Your task to perform on an android device: Open Wikipedia Image 0: 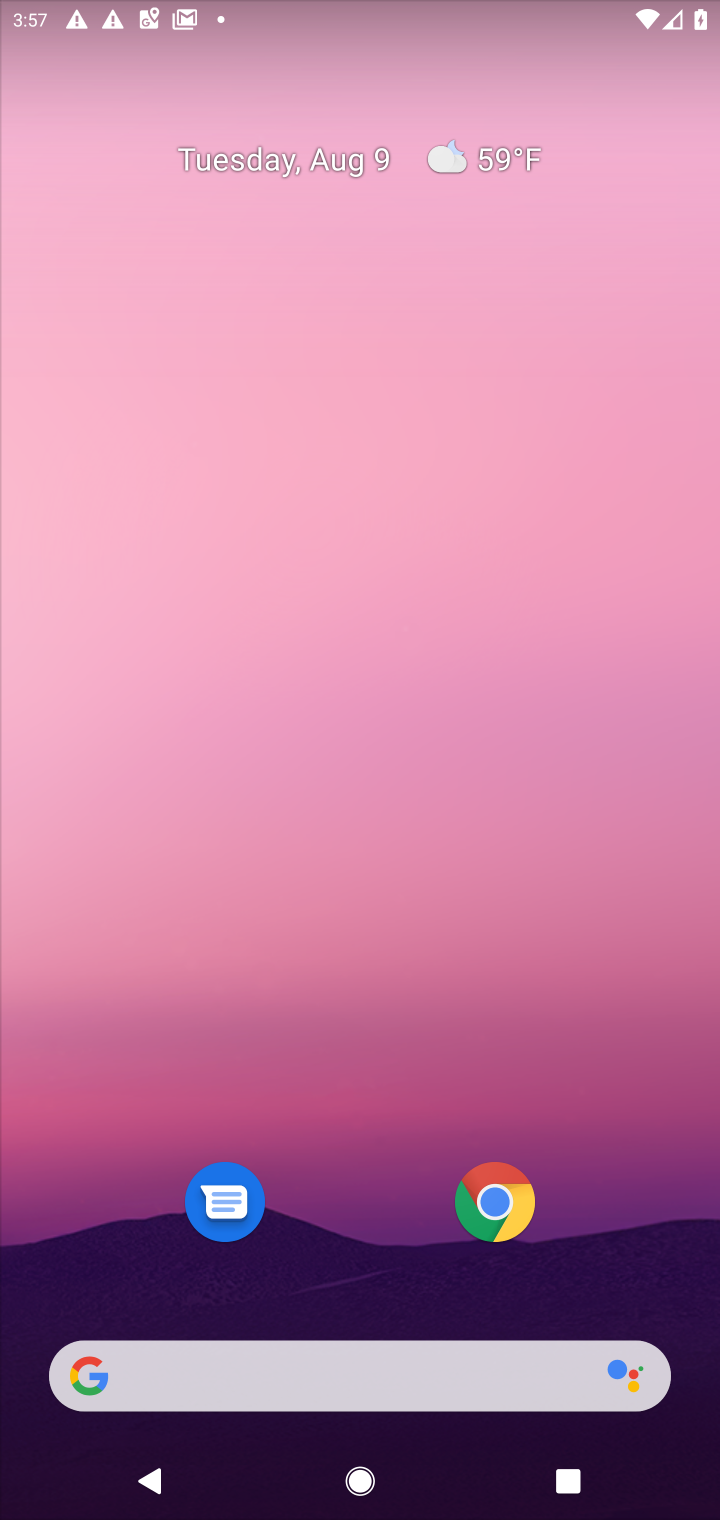
Step 0: drag from (350, 253) to (350, 147)
Your task to perform on an android device: Open Wikipedia Image 1: 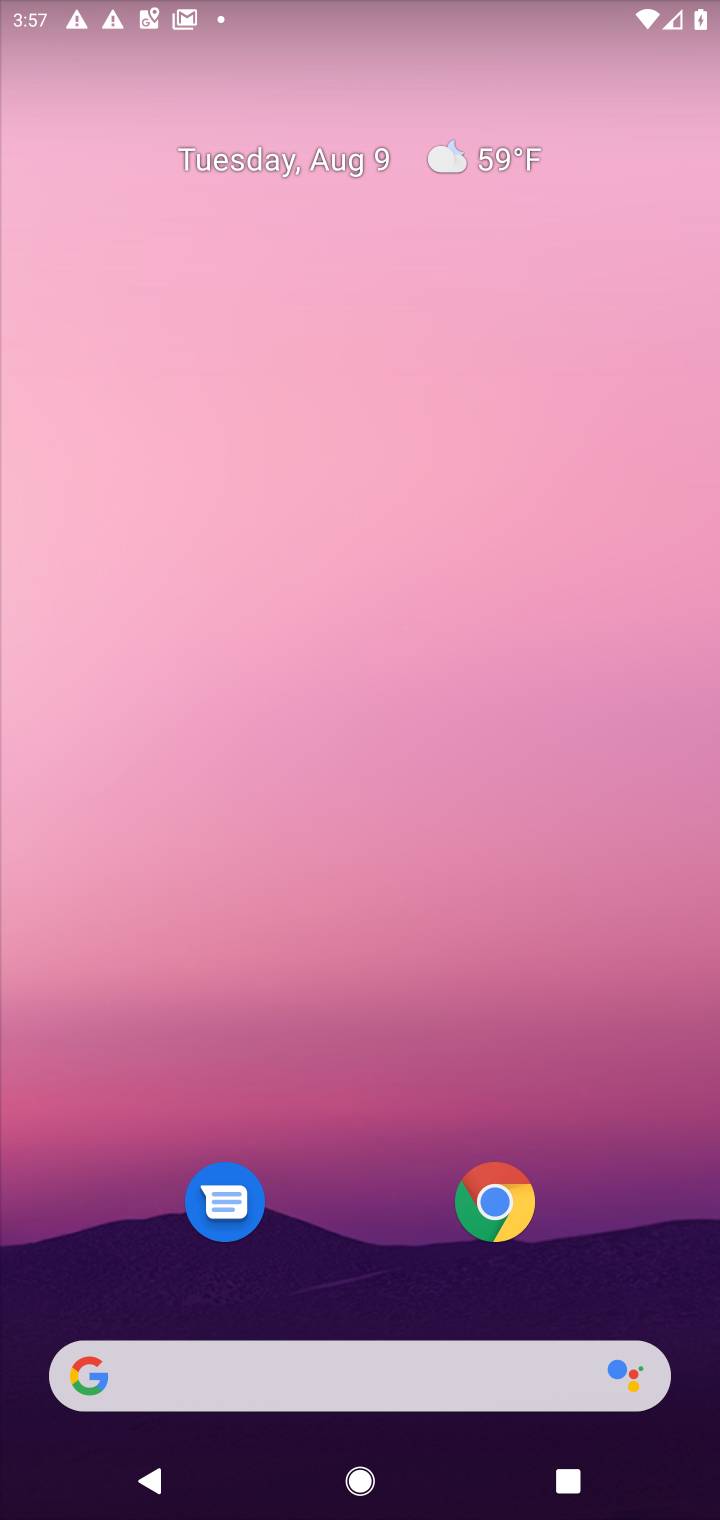
Step 1: drag from (352, 1170) to (340, 215)
Your task to perform on an android device: Open Wikipedia Image 2: 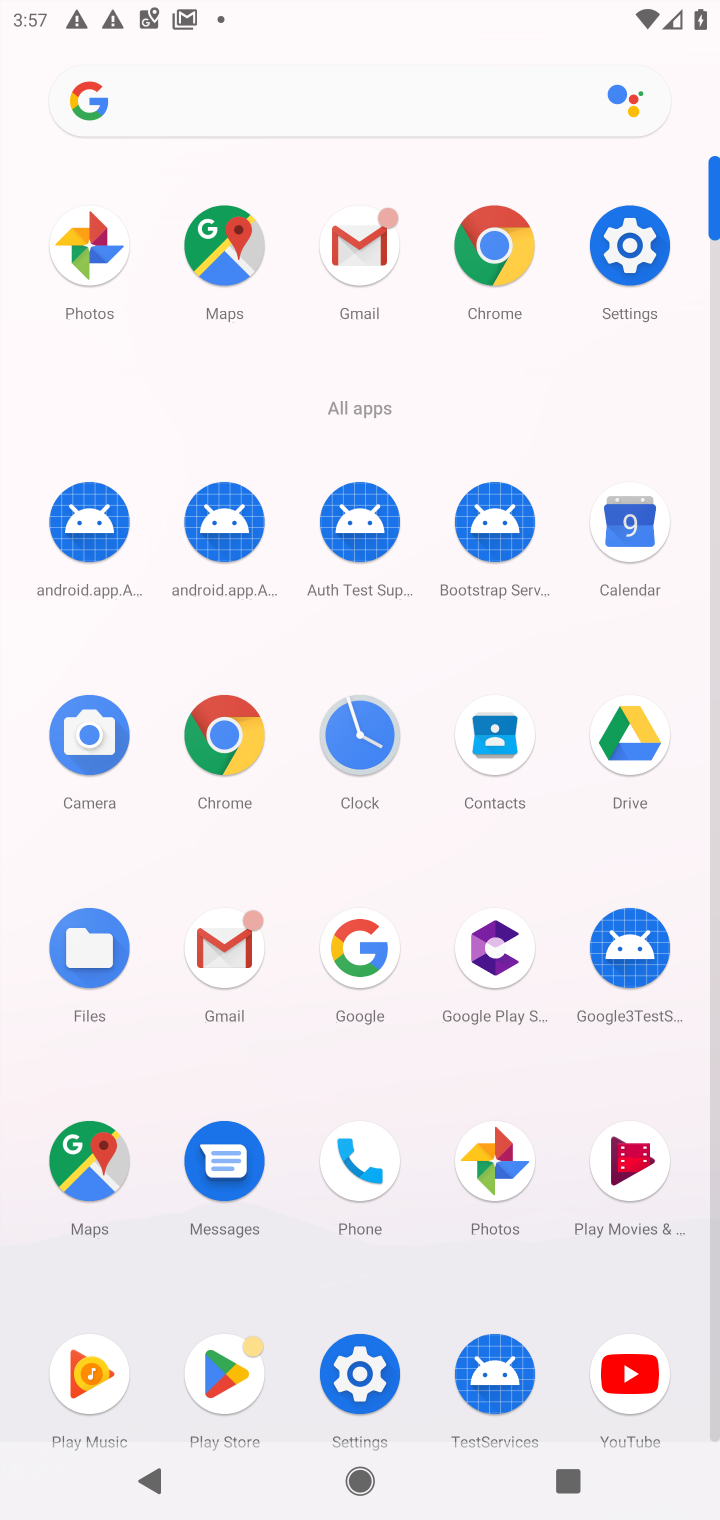
Step 2: click (379, 217)
Your task to perform on an android device: Open Wikipedia Image 3: 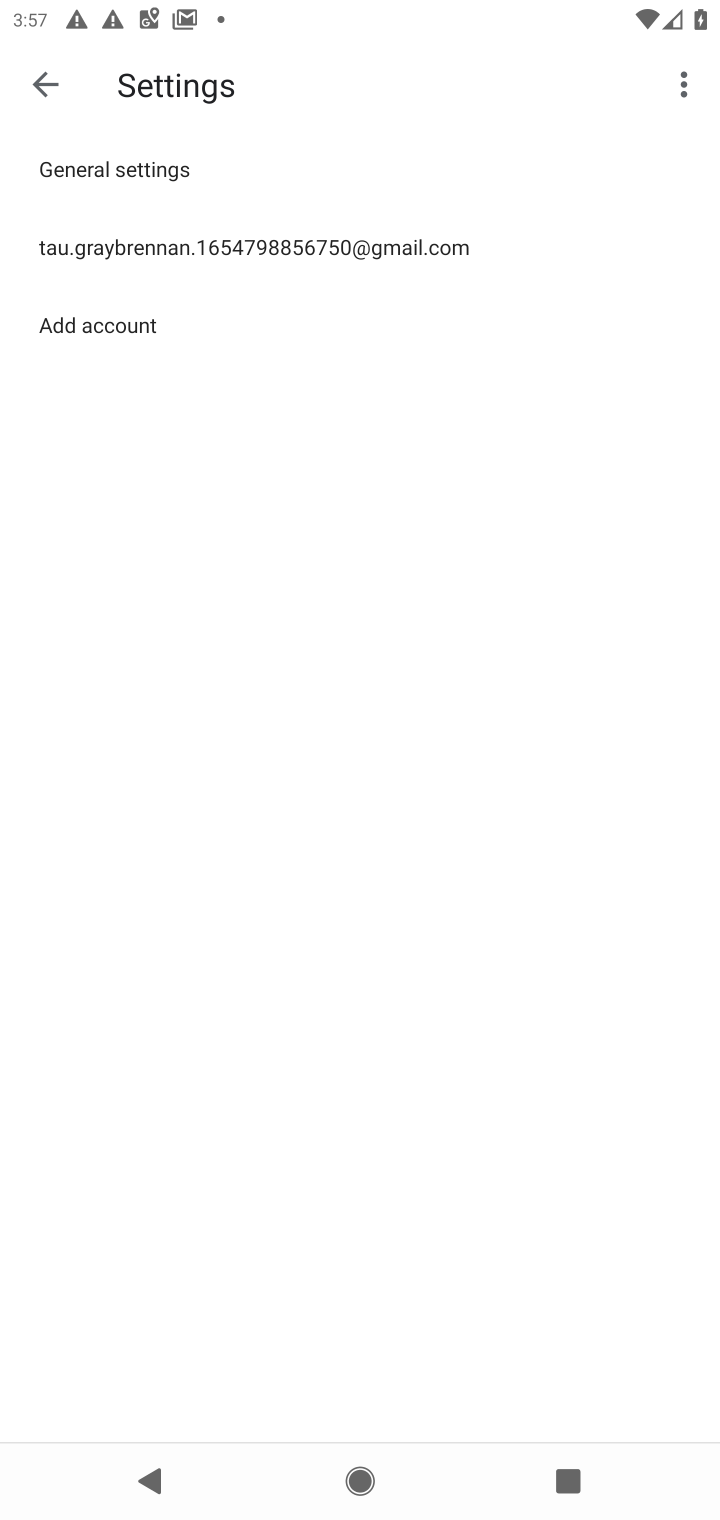
Step 3: press home button
Your task to perform on an android device: Open Wikipedia Image 4: 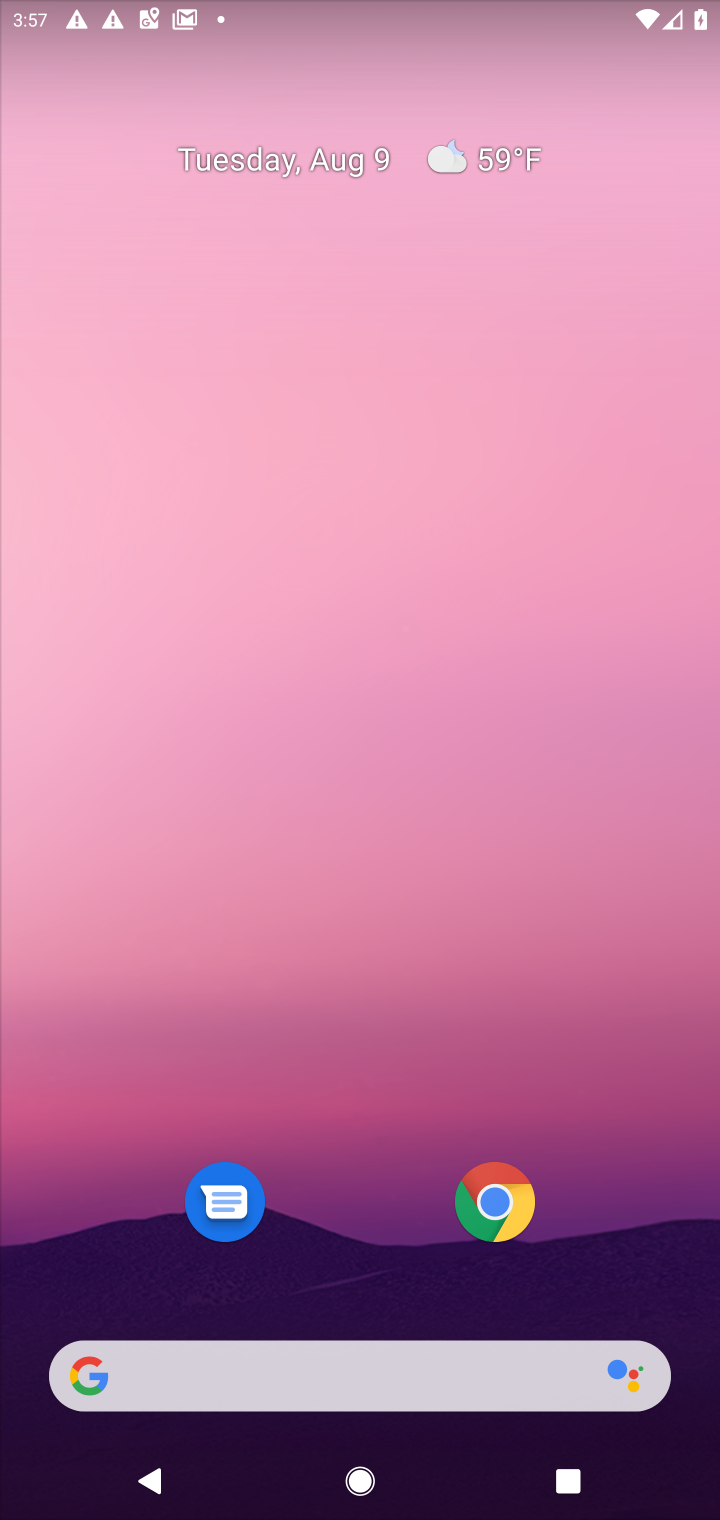
Step 4: click (488, 1208)
Your task to perform on an android device: Open Wikipedia Image 5: 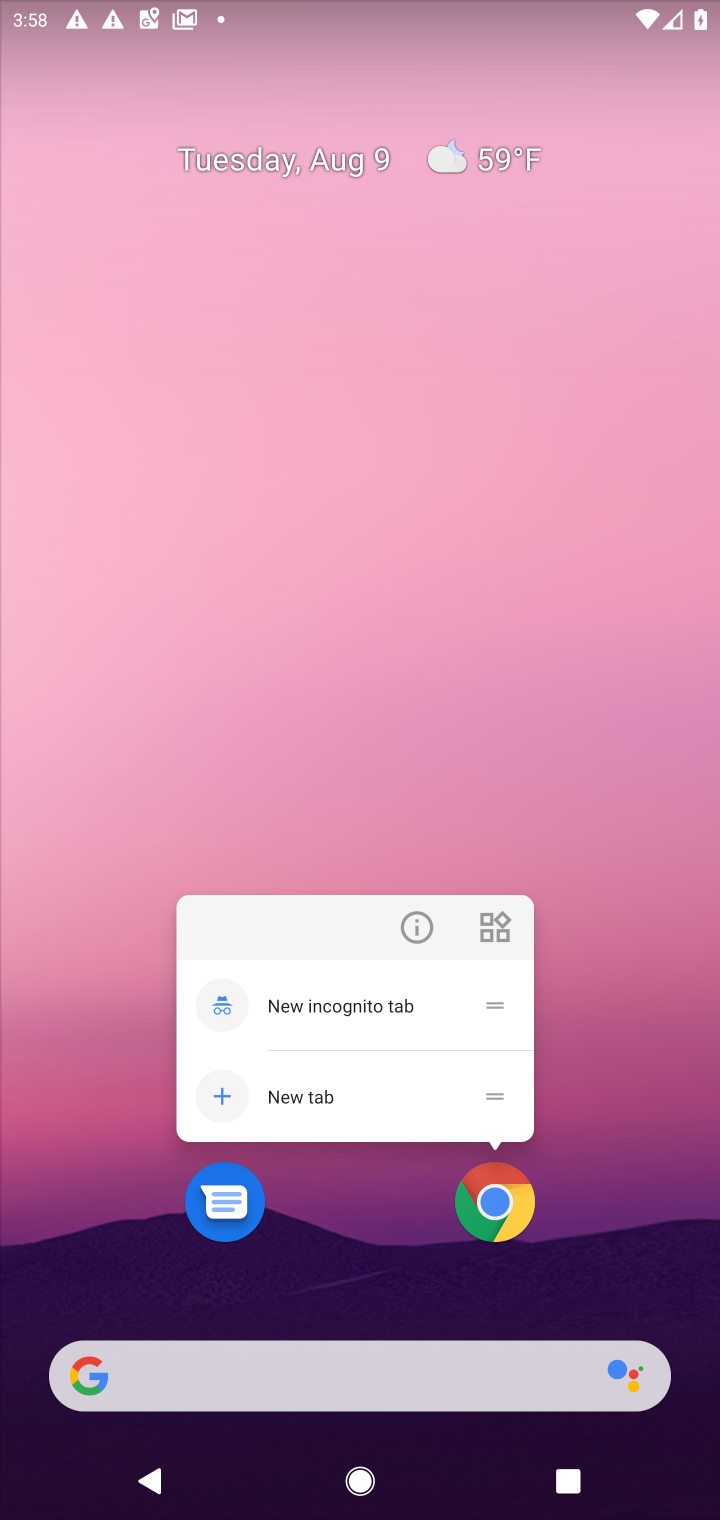
Step 5: click (521, 1204)
Your task to perform on an android device: Open Wikipedia Image 6: 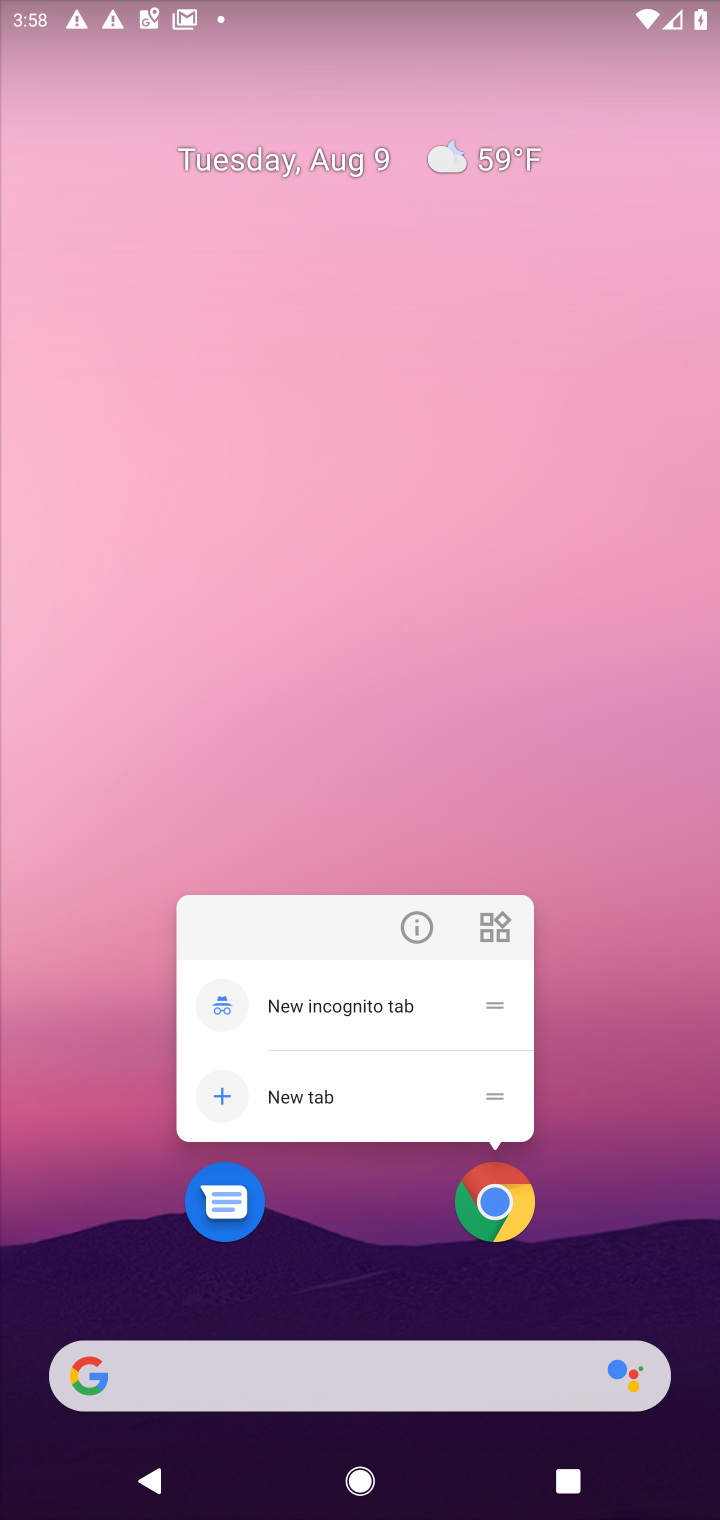
Step 6: drag from (428, 1289) to (439, 198)
Your task to perform on an android device: Open Wikipedia Image 7: 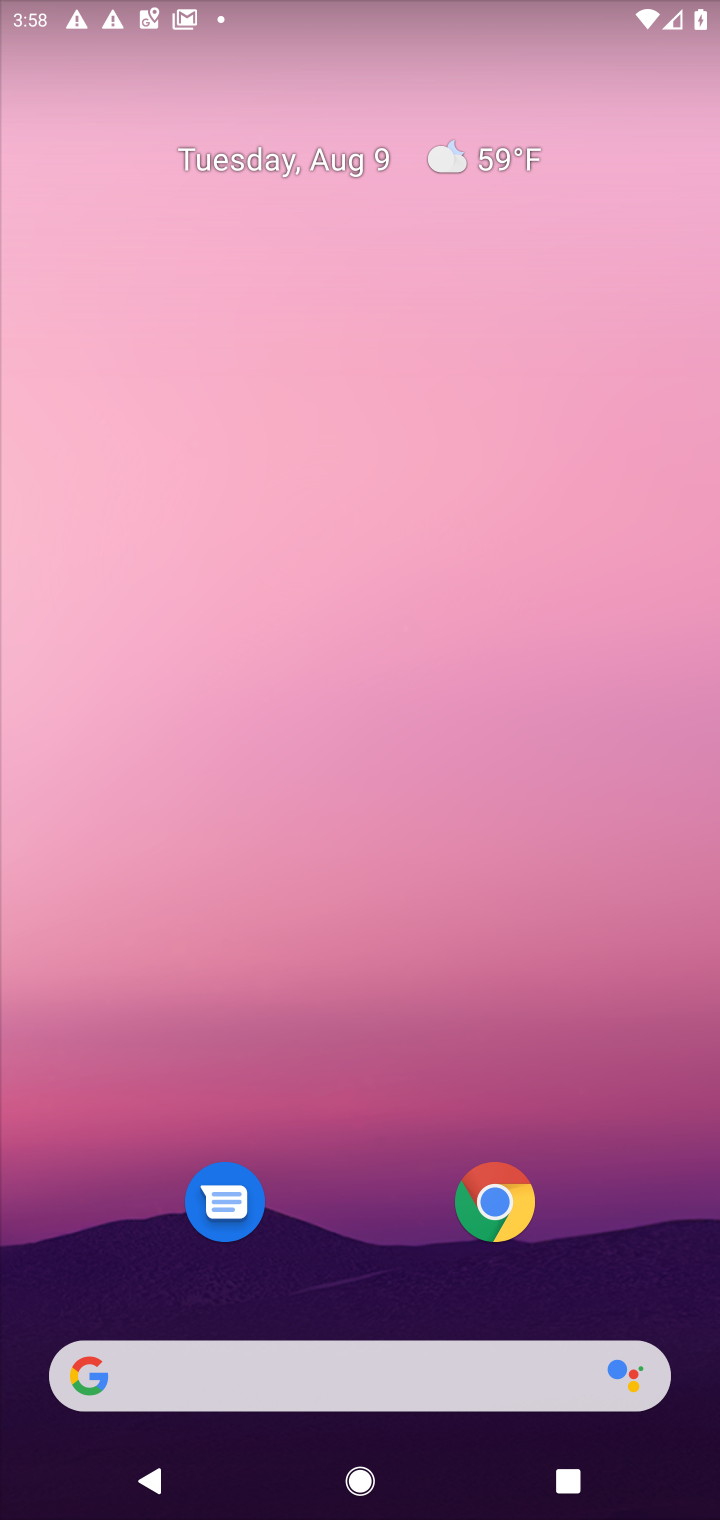
Step 7: drag from (367, 1217) to (393, 58)
Your task to perform on an android device: Open Wikipedia Image 8: 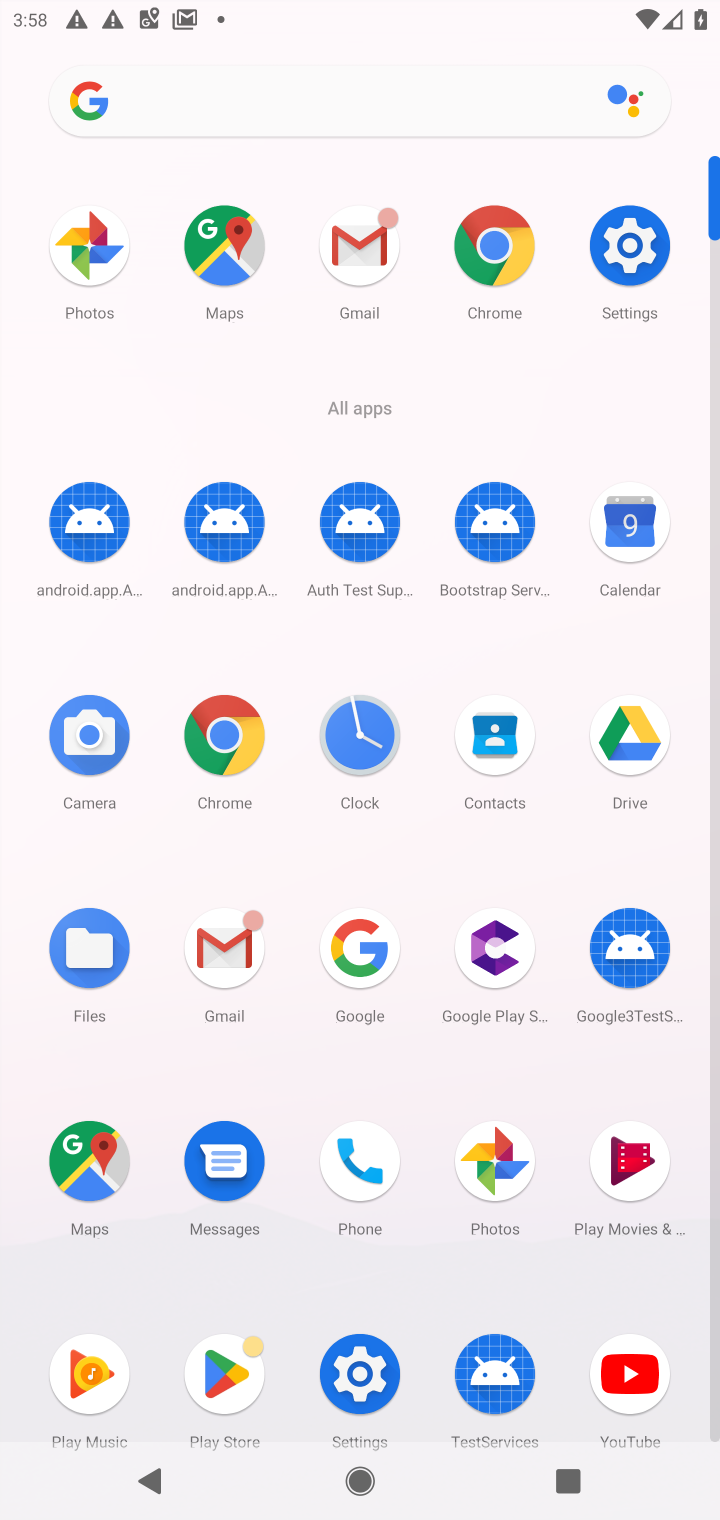
Step 8: click (491, 235)
Your task to perform on an android device: Open Wikipedia Image 9: 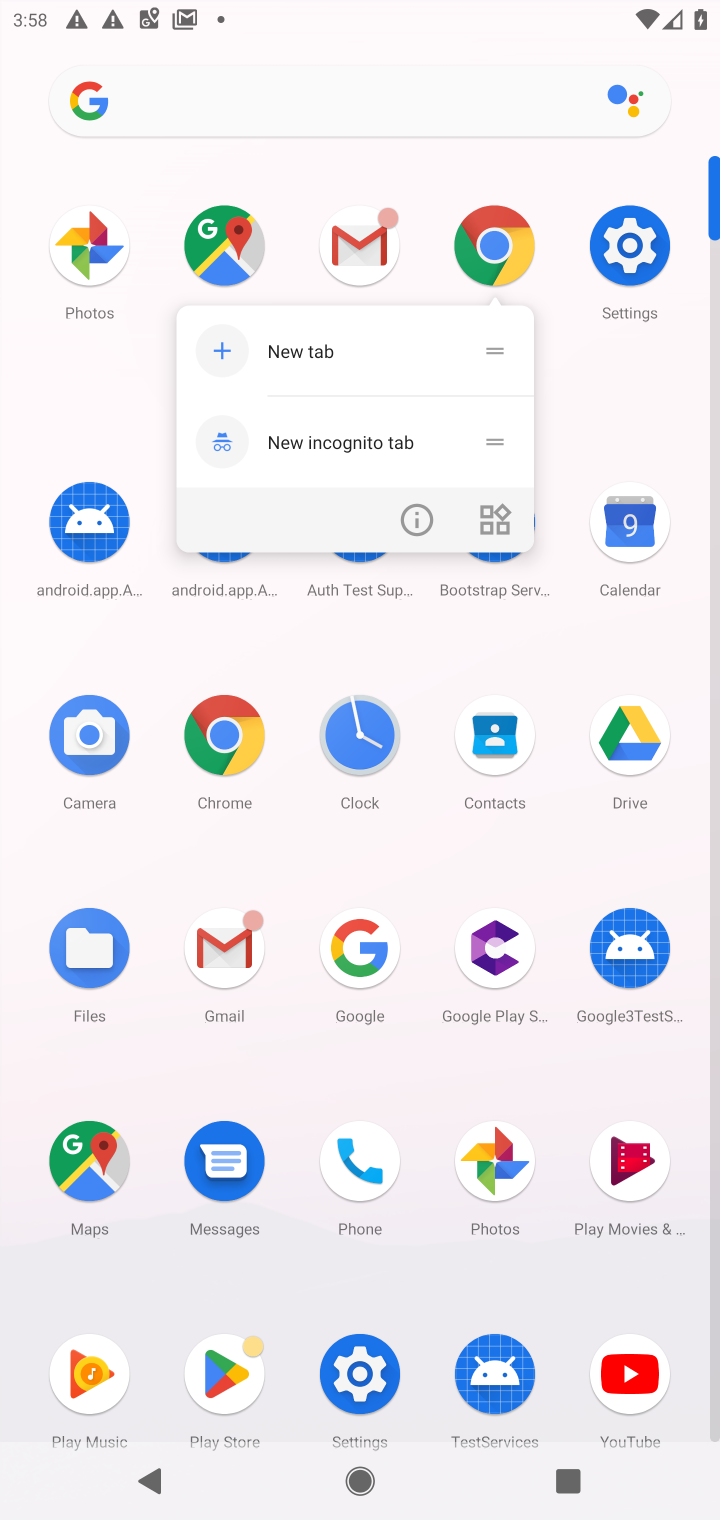
Step 9: click (214, 722)
Your task to perform on an android device: Open Wikipedia Image 10: 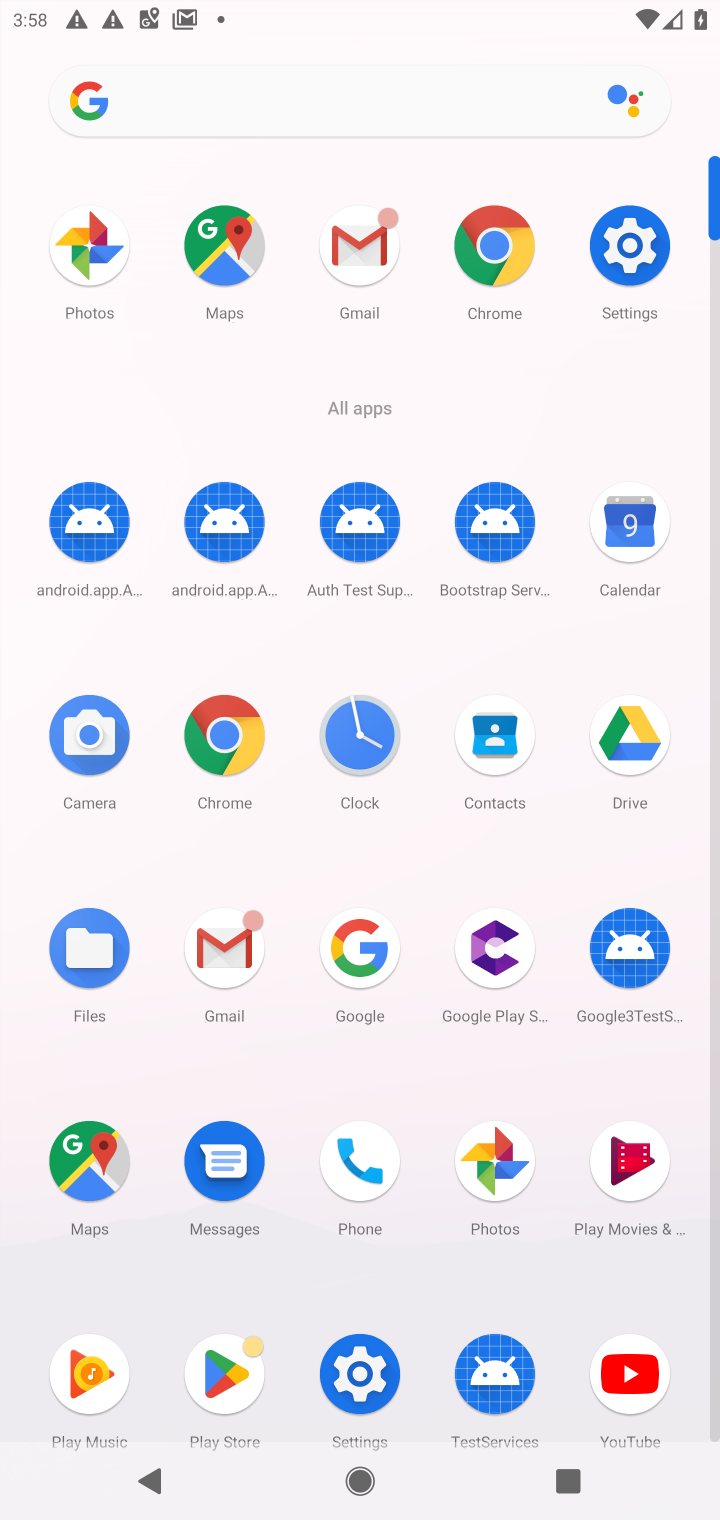
Step 10: click (480, 253)
Your task to perform on an android device: Open Wikipedia Image 11: 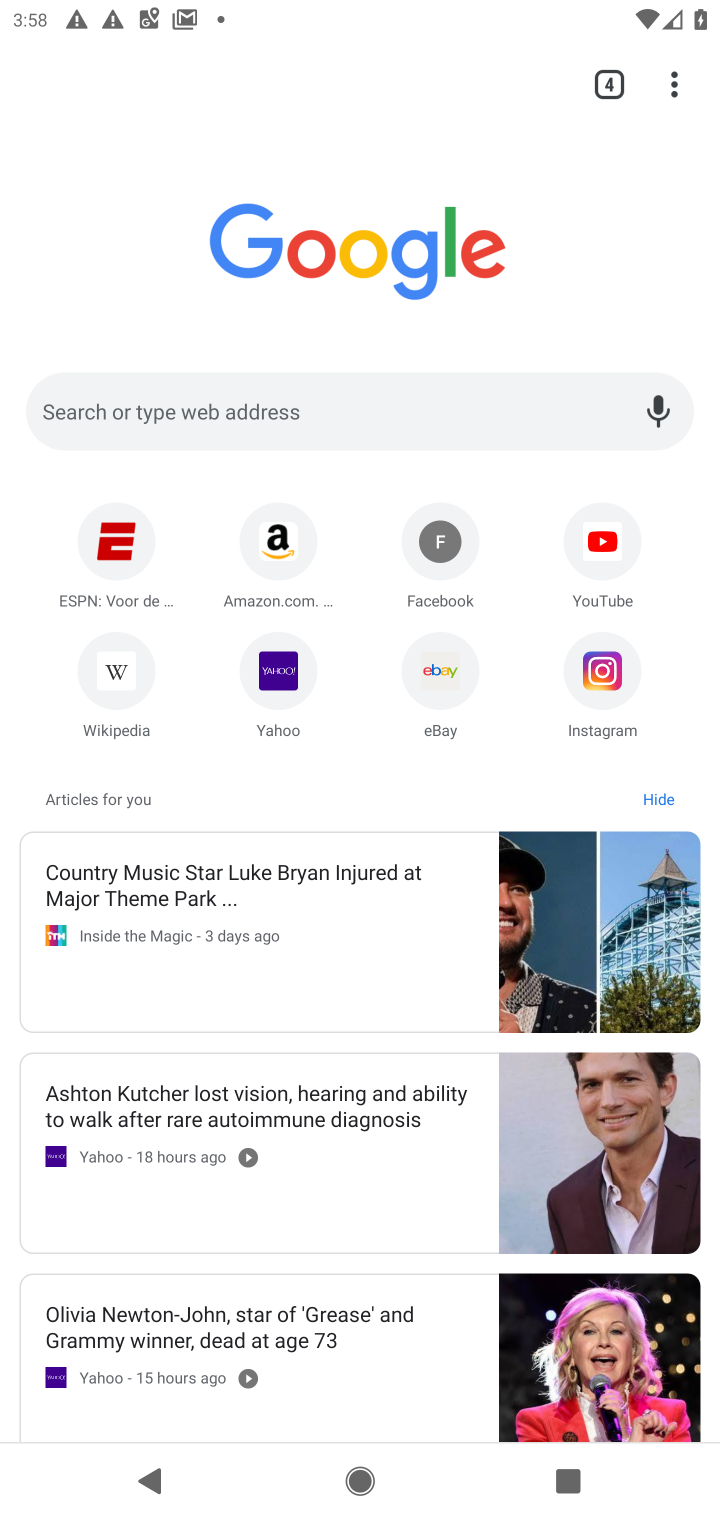
Step 11: click (111, 672)
Your task to perform on an android device: Open Wikipedia Image 12: 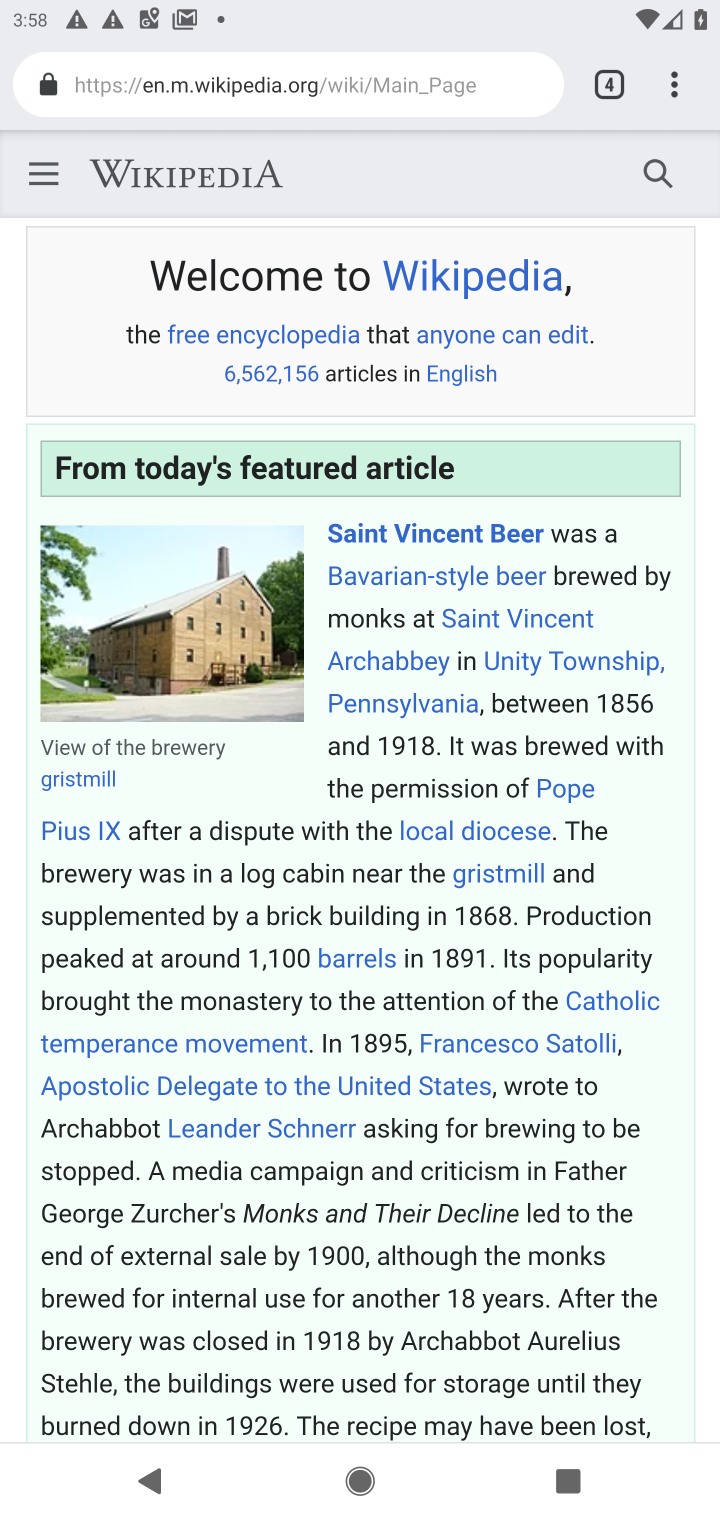
Step 12: task complete